Your task to perform on an android device: Go to accessibility settings Image 0: 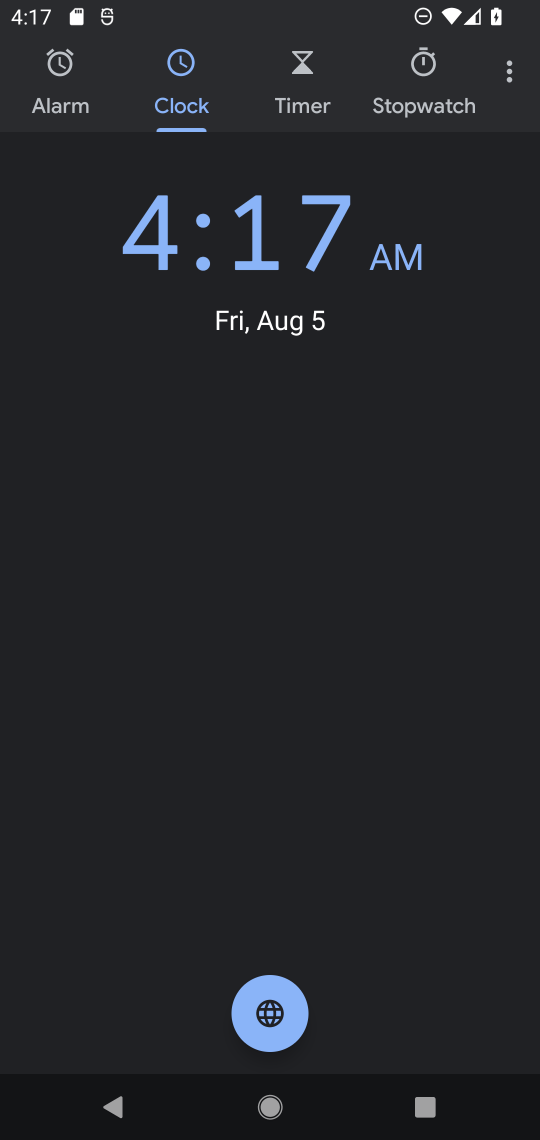
Step 0: press home button
Your task to perform on an android device: Go to accessibility settings Image 1: 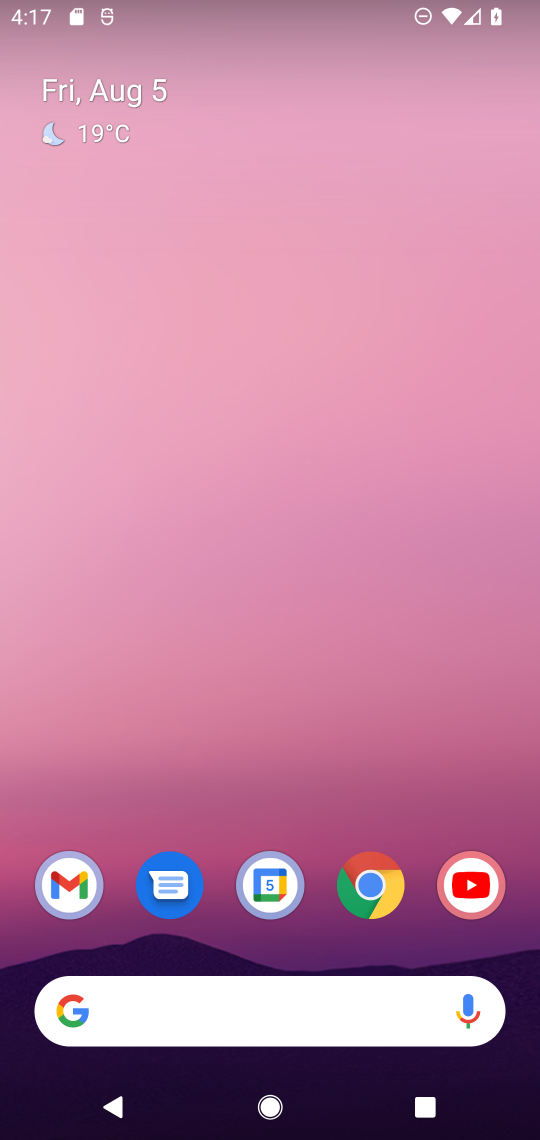
Step 1: drag from (322, 923) to (310, 79)
Your task to perform on an android device: Go to accessibility settings Image 2: 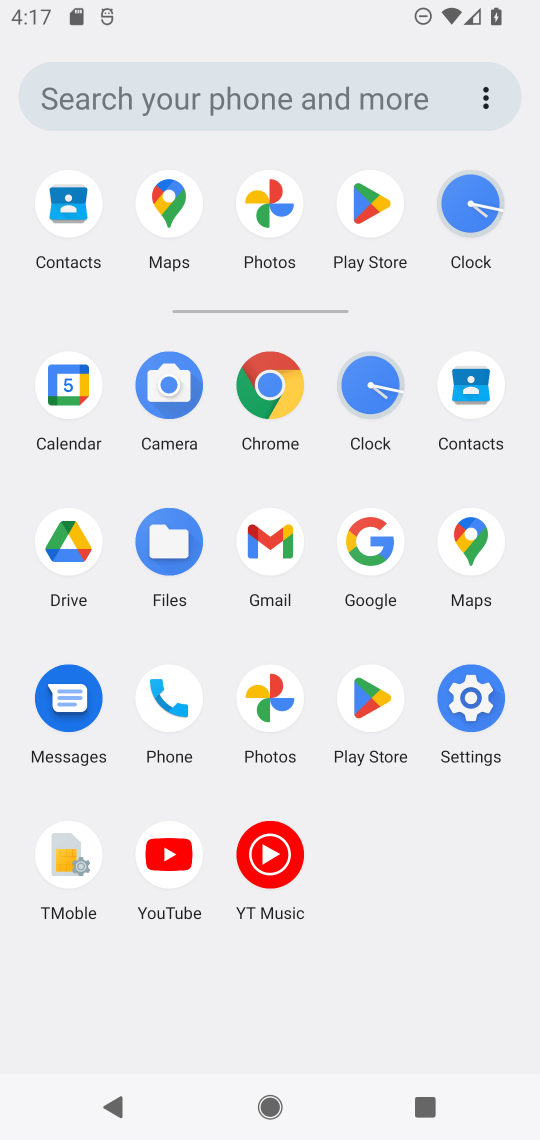
Step 2: click (478, 702)
Your task to perform on an android device: Go to accessibility settings Image 3: 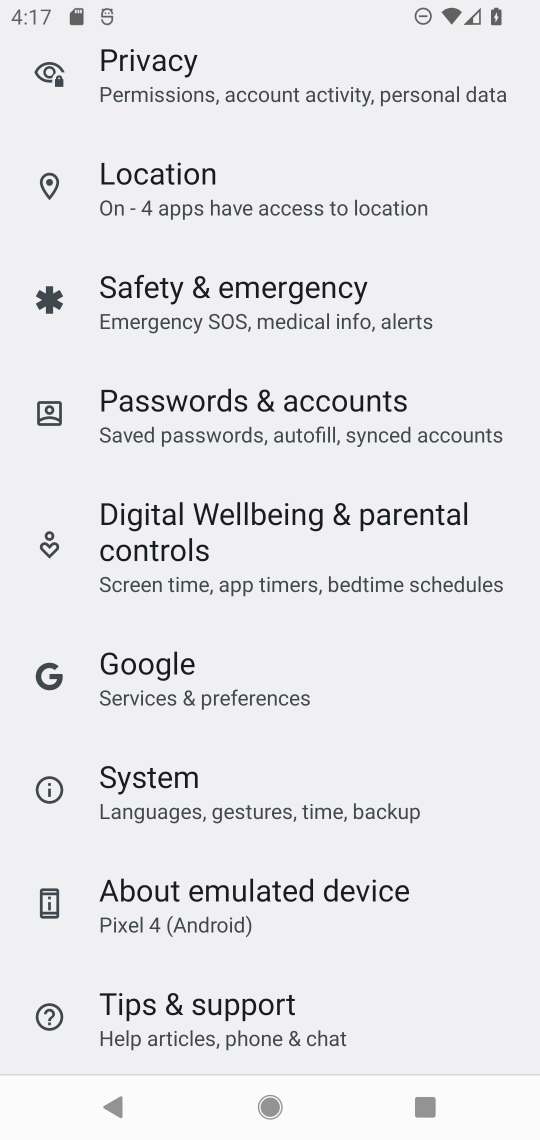
Step 3: drag from (208, 295) to (205, 795)
Your task to perform on an android device: Go to accessibility settings Image 4: 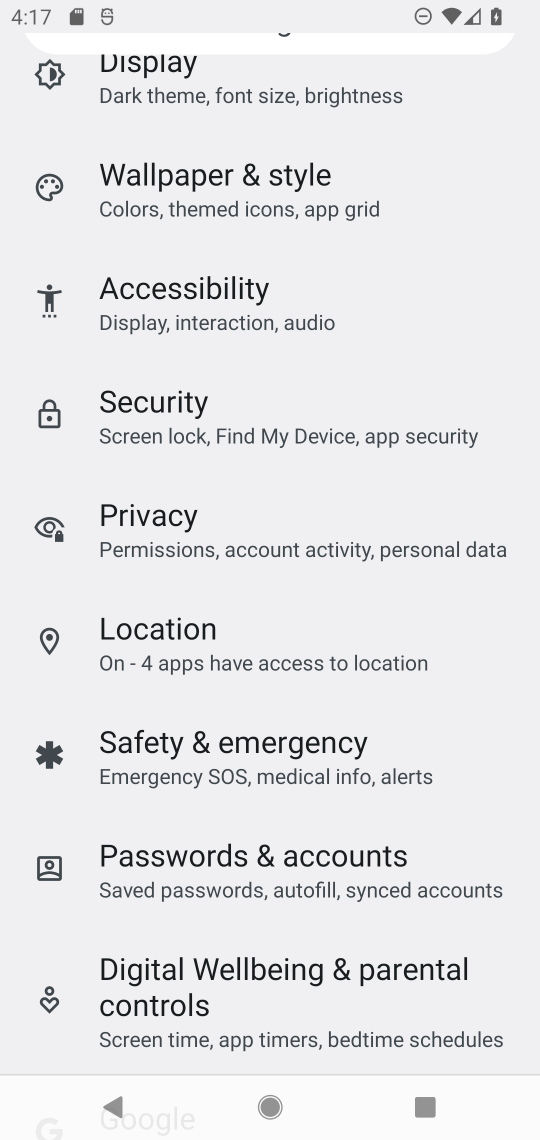
Step 4: click (149, 306)
Your task to perform on an android device: Go to accessibility settings Image 5: 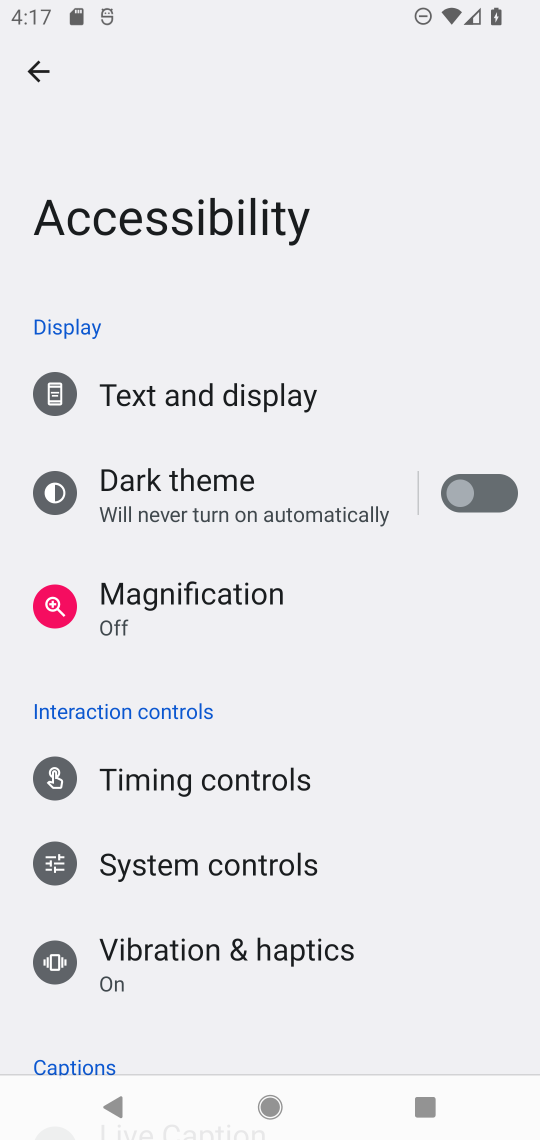
Step 5: task complete